Your task to perform on an android device: open a bookmark in the chrome app Image 0: 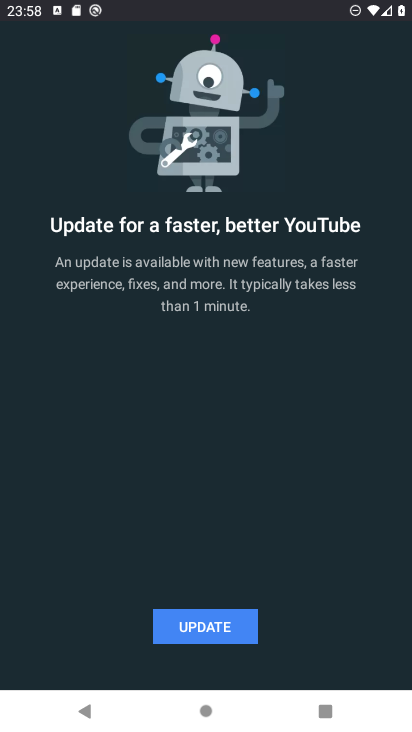
Step 0: press home button
Your task to perform on an android device: open a bookmark in the chrome app Image 1: 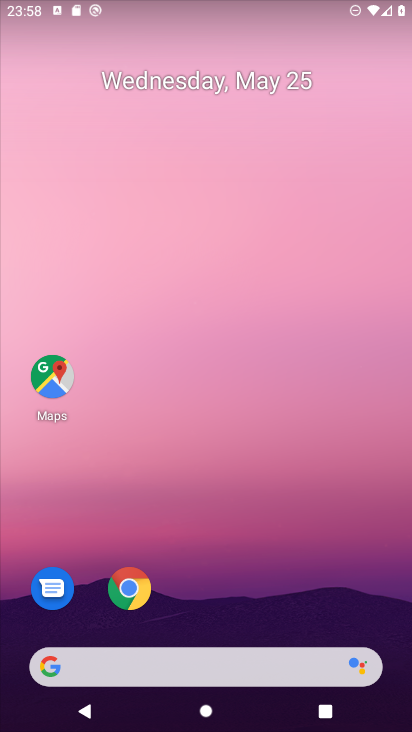
Step 1: click (136, 589)
Your task to perform on an android device: open a bookmark in the chrome app Image 2: 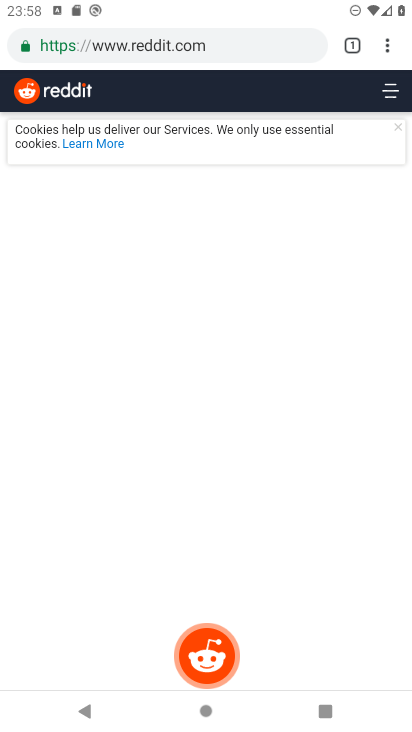
Step 2: click (381, 46)
Your task to perform on an android device: open a bookmark in the chrome app Image 3: 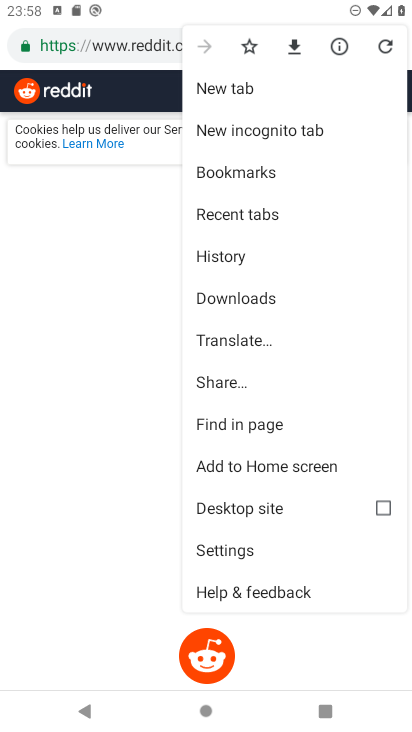
Step 3: click (249, 178)
Your task to perform on an android device: open a bookmark in the chrome app Image 4: 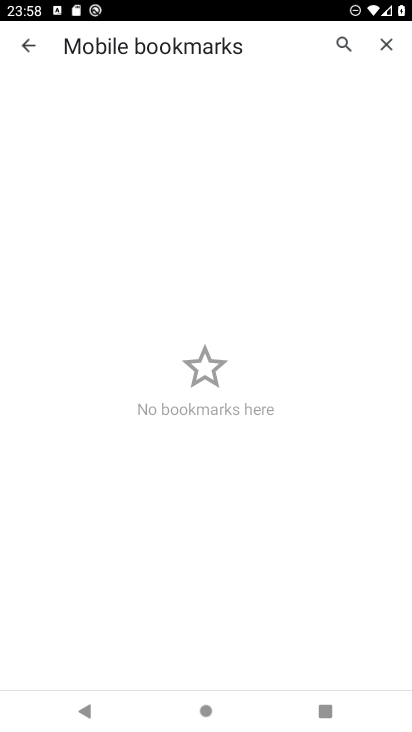
Step 4: task complete